Your task to perform on an android device: Open Chrome and go to settings Image 0: 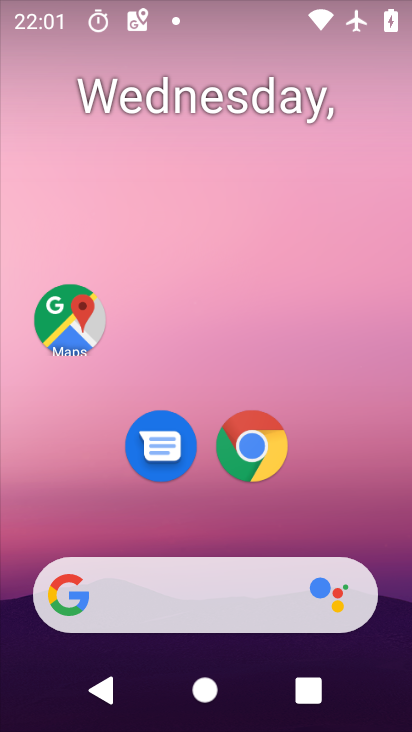
Step 0: press home button
Your task to perform on an android device: Open Chrome and go to settings Image 1: 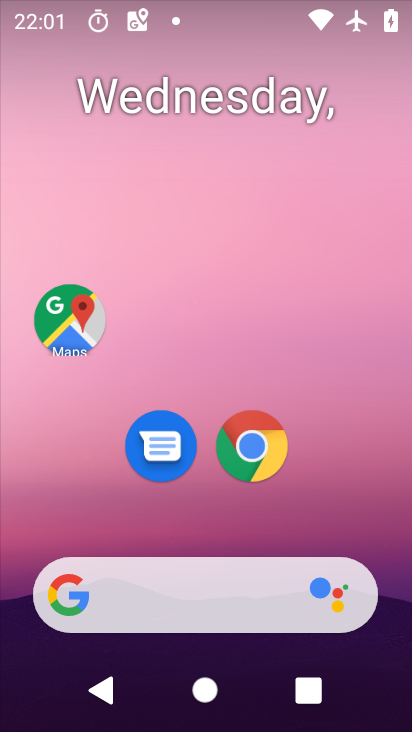
Step 1: click (267, 455)
Your task to perform on an android device: Open Chrome and go to settings Image 2: 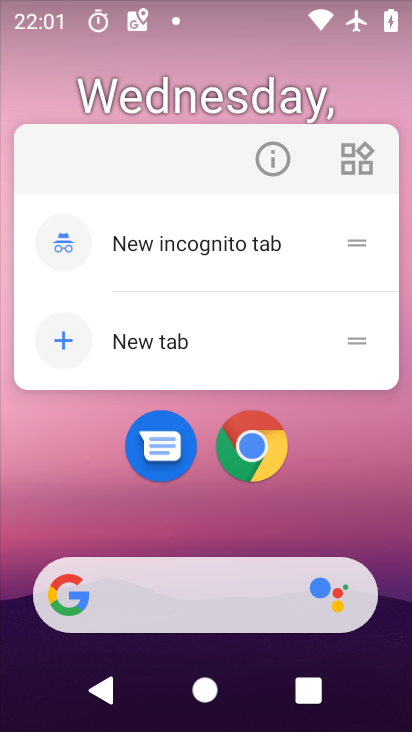
Step 2: click (224, 451)
Your task to perform on an android device: Open Chrome and go to settings Image 3: 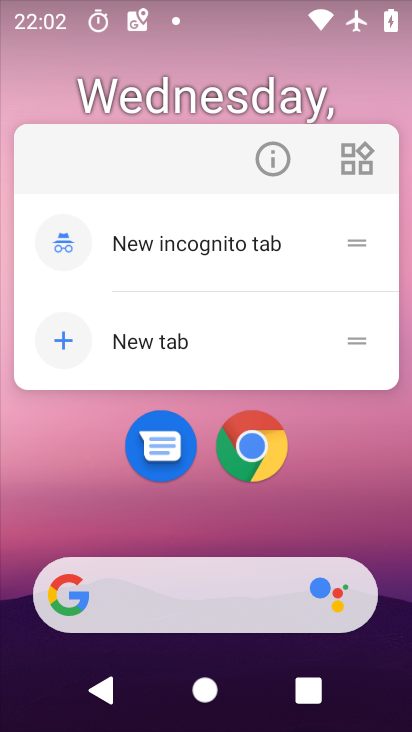
Step 3: click (251, 444)
Your task to perform on an android device: Open Chrome and go to settings Image 4: 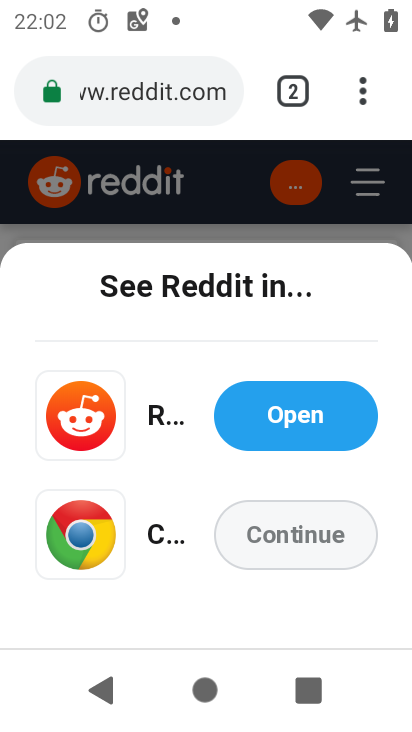
Step 4: task complete